Your task to perform on an android device: Open sound settings Image 0: 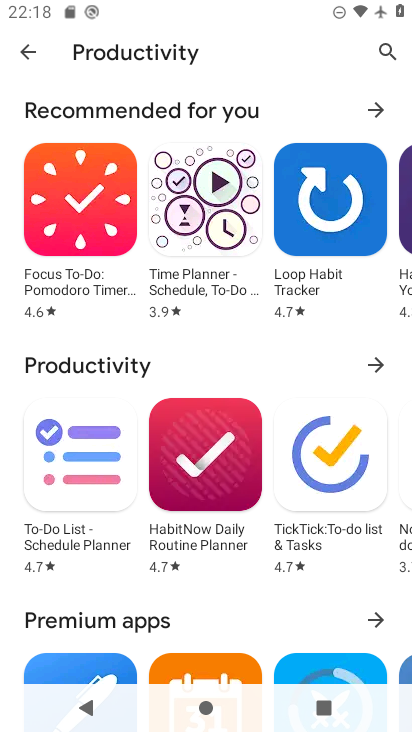
Step 0: press home button
Your task to perform on an android device: Open sound settings Image 1: 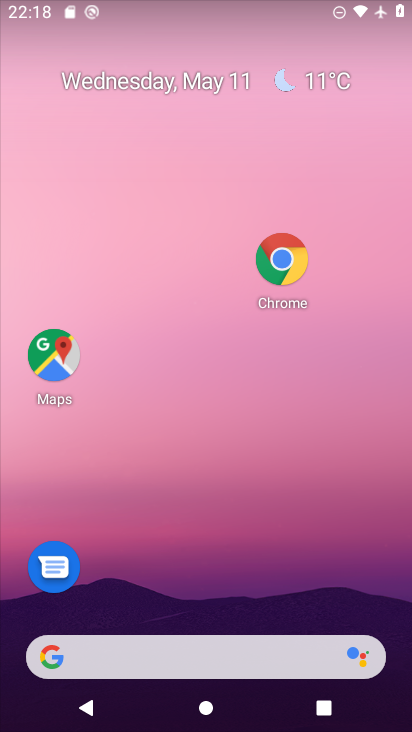
Step 1: drag from (163, 666) to (302, 123)
Your task to perform on an android device: Open sound settings Image 2: 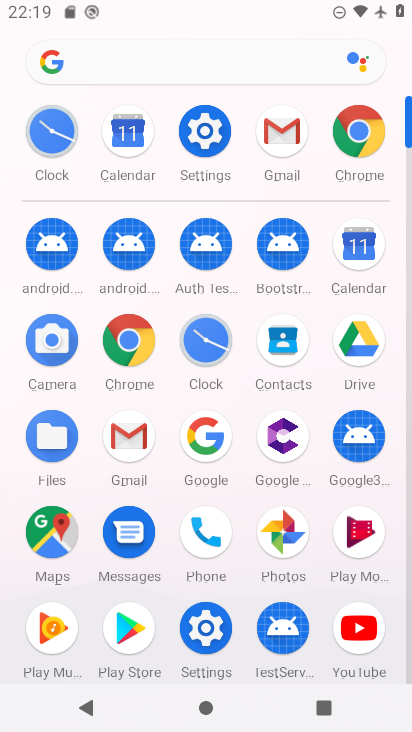
Step 2: click (186, 136)
Your task to perform on an android device: Open sound settings Image 3: 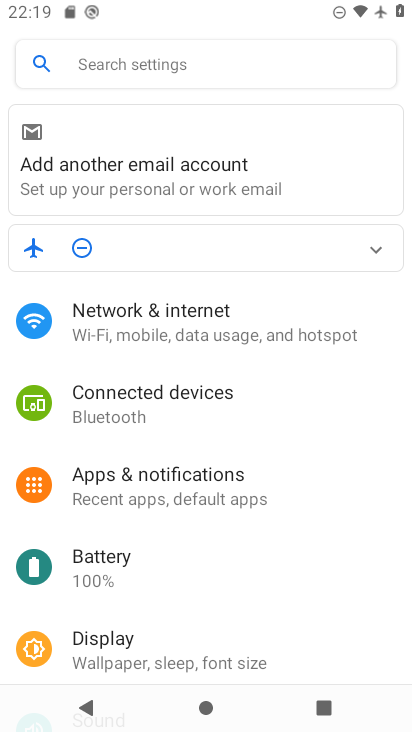
Step 3: drag from (179, 564) to (316, 254)
Your task to perform on an android device: Open sound settings Image 4: 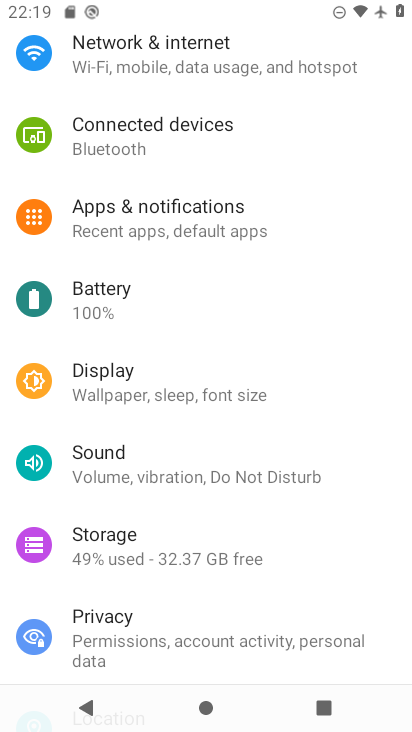
Step 4: click (169, 469)
Your task to perform on an android device: Open sound settings Image 5: 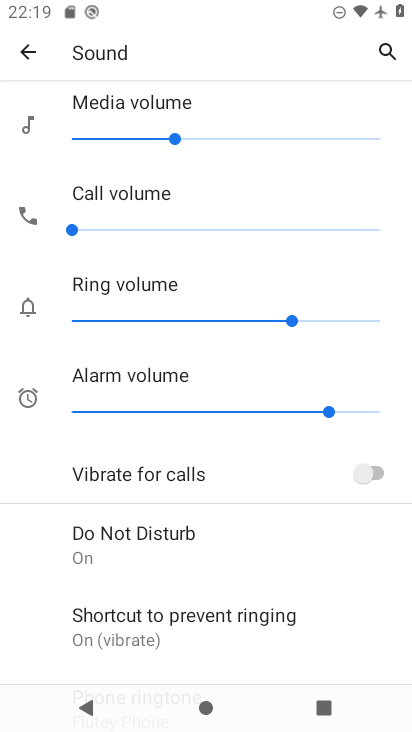
Step 5: task complete